Your task to perform on an android device: Go to accessibility settings Image 0: 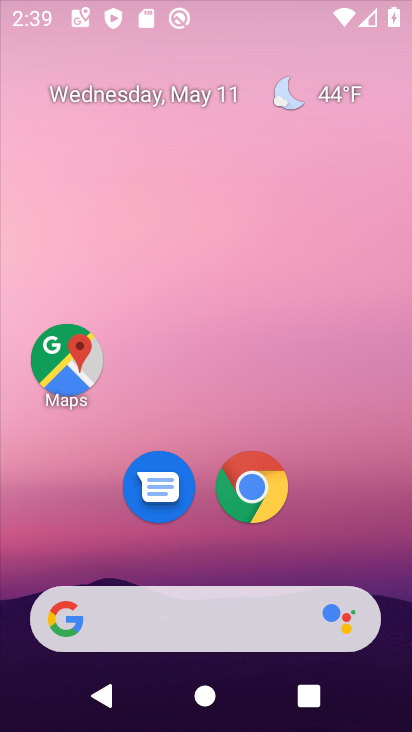
Step 0: drag from (188, 574) to (285, 214)
Your task to perform on an android device: Go to accessibility settings Image 1: 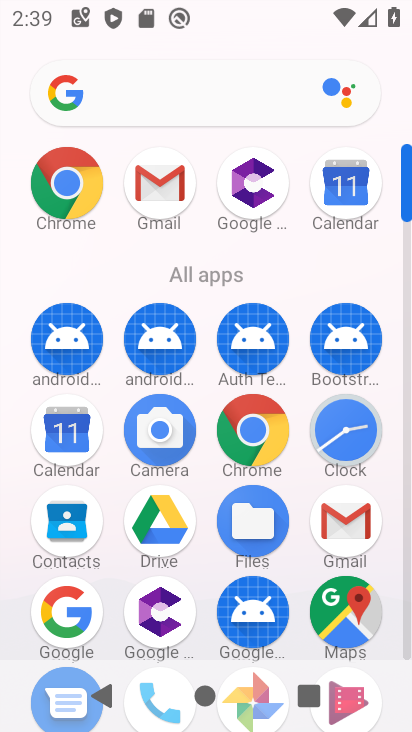
Step 1: drag from (250, 626) to (312, 151)
Your task to perform on an android device: Go to accessibility settings Image 2: 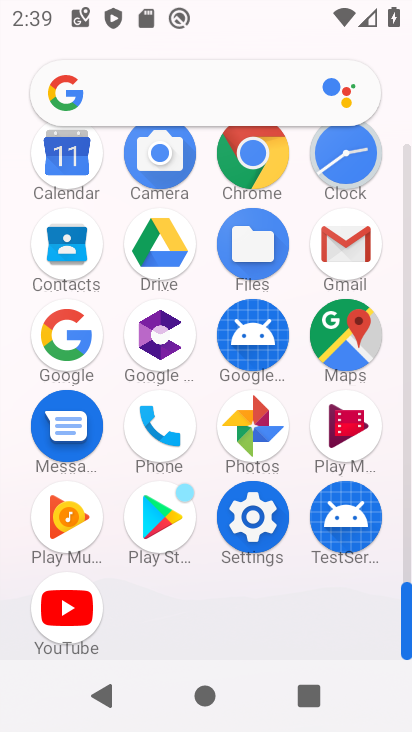
Step 2: click (255, 530)
Your task to perform on an android device: Go to accessibility settings Image 3: 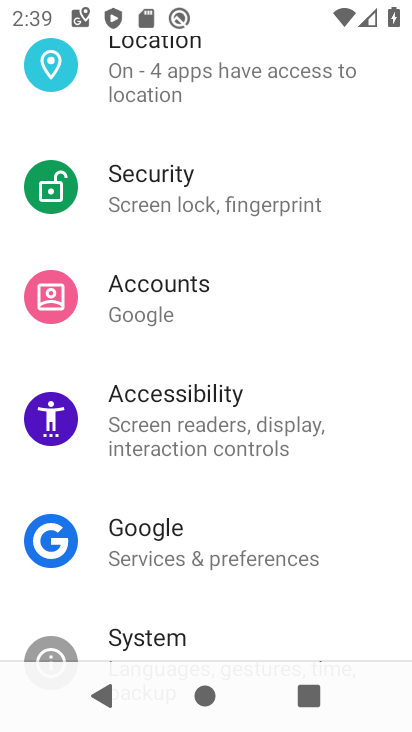
Step 3: drag from (217, 583) to (239, 513)
Your task to perform on an android device: Go to accessibility settings Image 4: 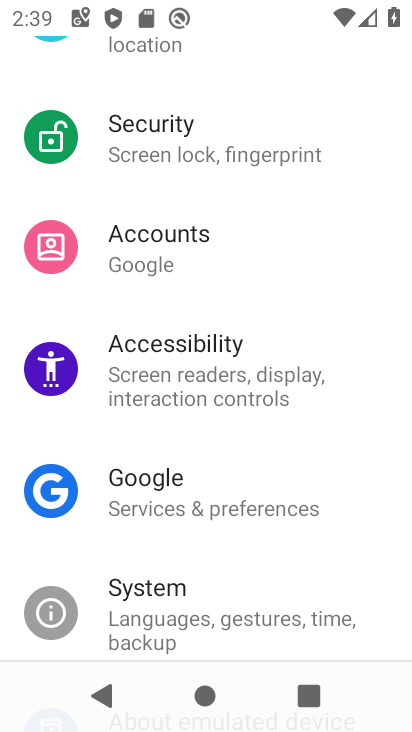
Step 4: click (199, 371)
Your task to perform on an android device: Go to accessibility settings Image 5: 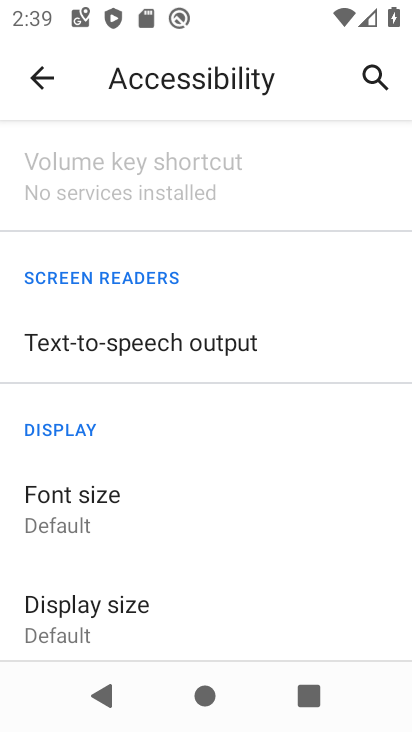
Step 5: task complete